Your task to perform on an android device: Search for a 4k TV on Best Buy Image 0: 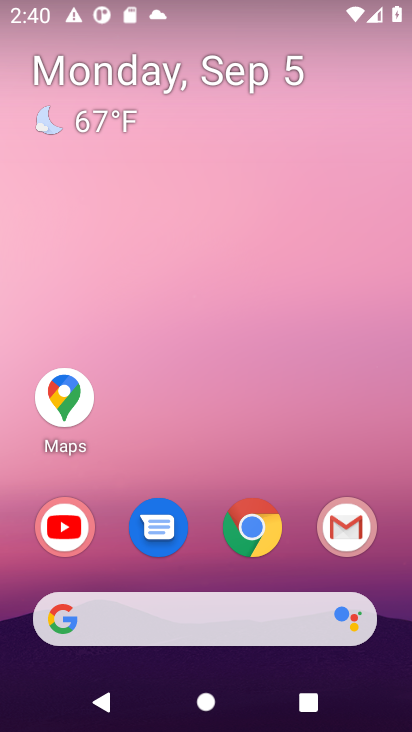
Step 0: click (269, 537)
Your task to perform on an android device: Search for a 4k TV on Best Buy Image 1: 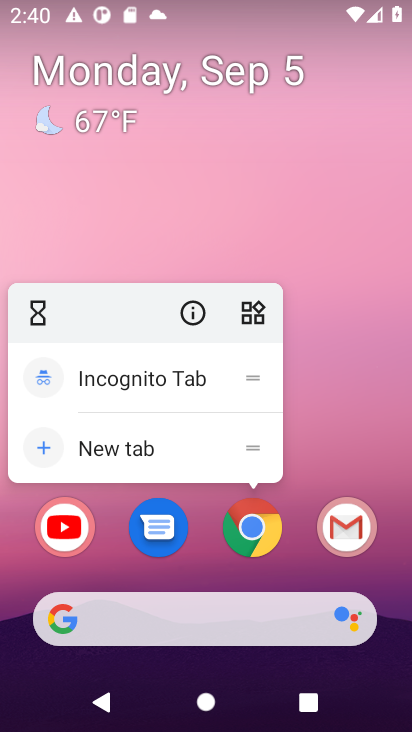
Step 1: click (264, 537)
Your task to perform on an android device: Search for a 4k TV on Best Buy Image 2: 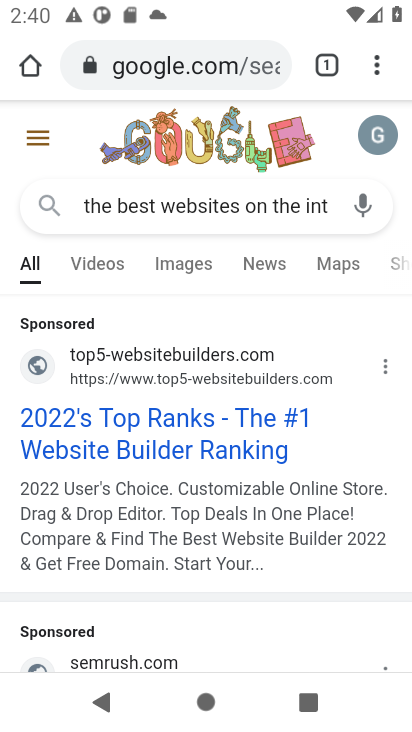
Step 2: click (222, 66)
Your task to perform on an android device: Search for a 4k TV on Best Buy Image 3: 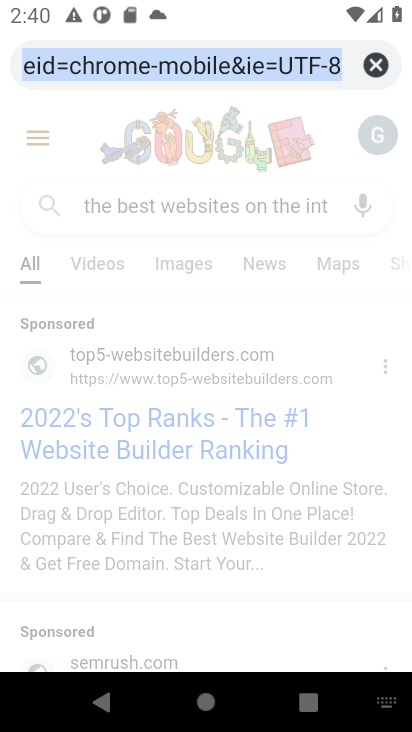
Step 3: type "best buy"
Your task to perform on an android device: Search for a 4k TV on Best Buy Image 4: 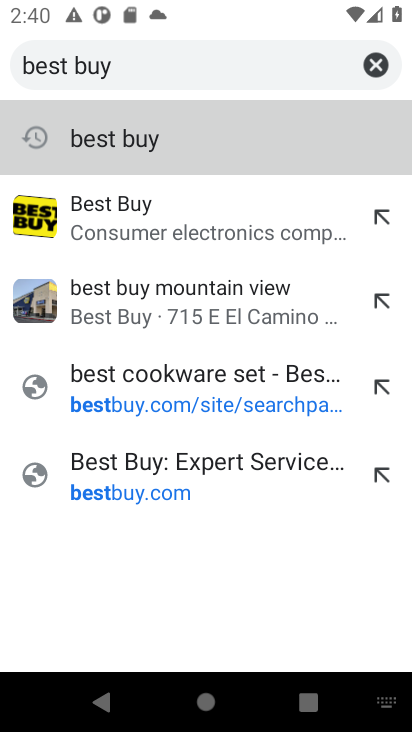
Step 4: click (160, 129)
Your task to perform on an android device: Search for a 4k TV on Best Buy Image 5: 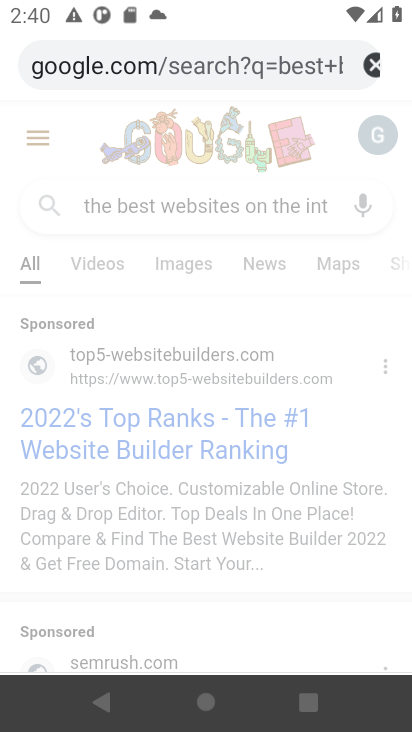
Step 5: click (148, 208)
Your task to perform on an android device: Search for a 4k TV on Best Buy Image 6: 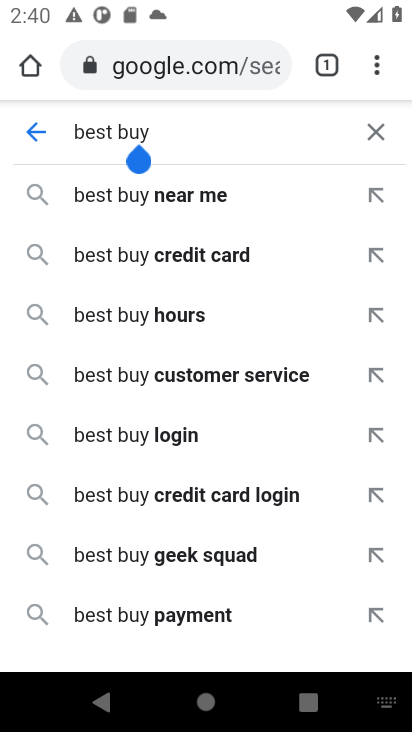
Step 6: click (131, 221)
Your task to perform on an android device: Search for a 4k TV on Best Buy Image 7: 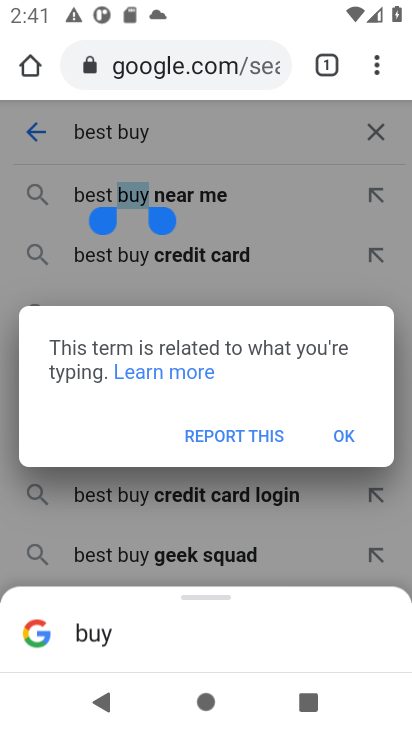
Step 7: click (328, 217)
Your task to perform on an android device: Search for a 4k TV on Best Buy Image 8: 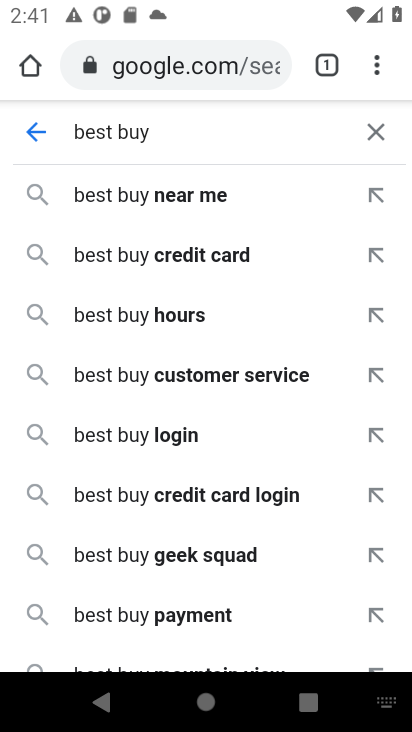
Step 8: click (198, 65)
Your task to perform on an android device: Search for a 4k TV on Best Buy Image 9: 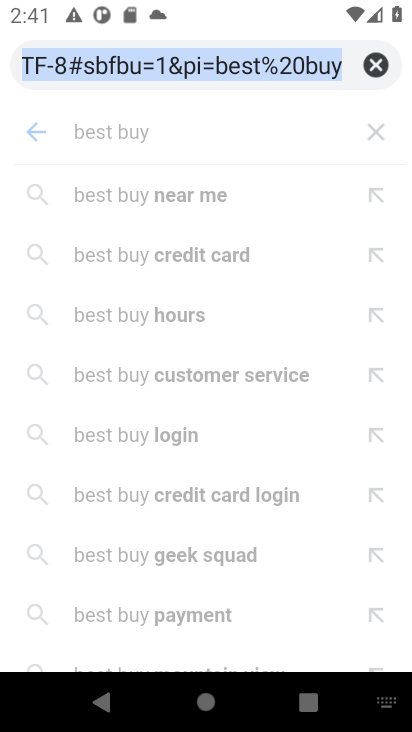
Step 9: type "best buy"
Your task to perform on an android device: Search for a 4k TV on Best Buy Image 10: 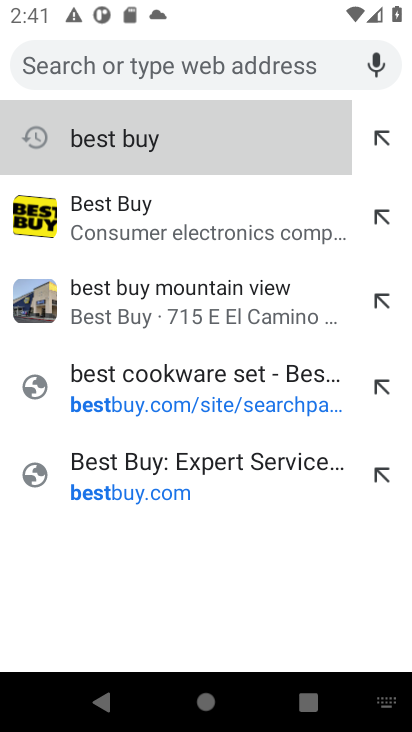
Step 10: click (106, 143)
Your task to perform on an android device: Search for a 4k TV on Best Buy Image 11: 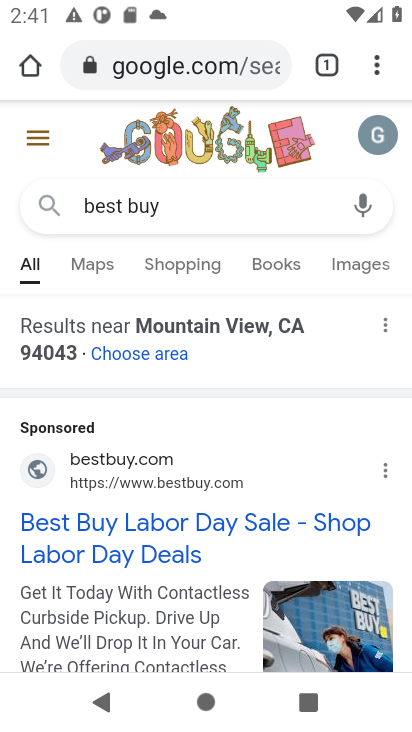
Step 11: click (176, 542)
Your task to perform on an android device: Search for a 4k TV on Best Buy Image 12: 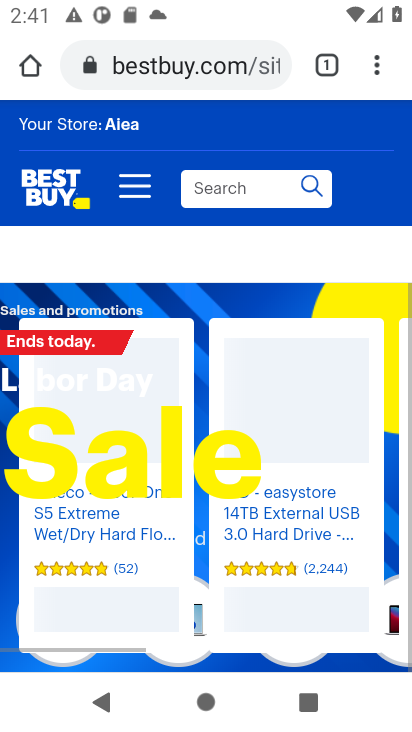
Step 12: click (156, 526)
Your task to perform on an android device: Search for a 4k TV on Best Buy Image 13: 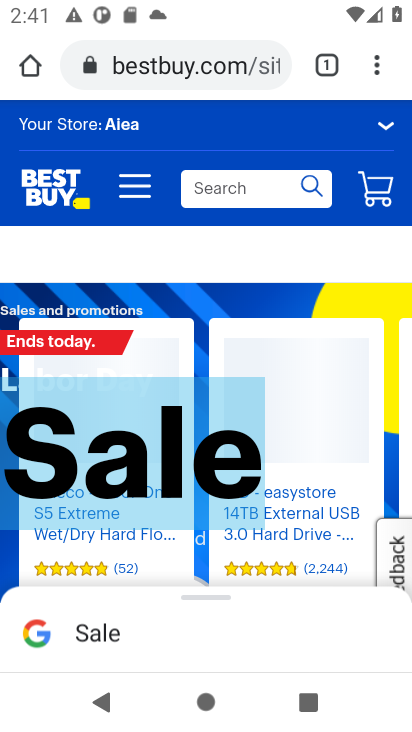
Step 13: click (234, 183)
Your task to perform on an android device: Search for a 4k TV on Best Buy Image 14: 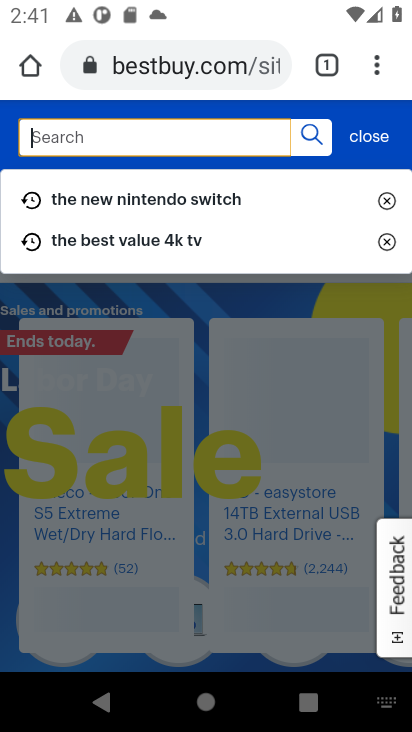
Step 14: type "4K TV"
Your task to perform on an android device: Search for a 4k TV on Best Buy Image 15: 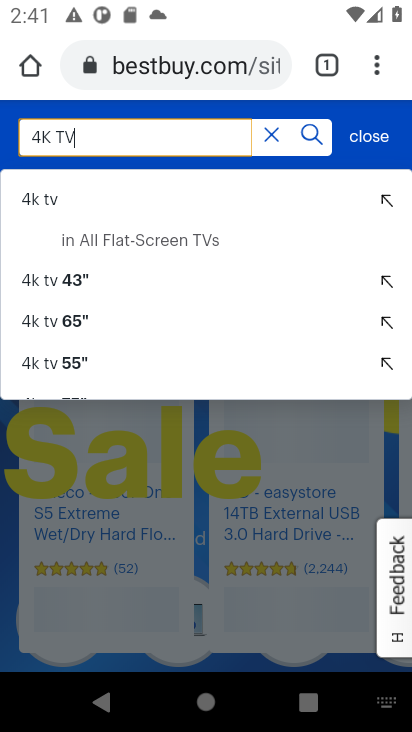
Step 15: click (43, 188)
Your task to perform on an android device: Search for a 4k TV on Best Buy Image 16: 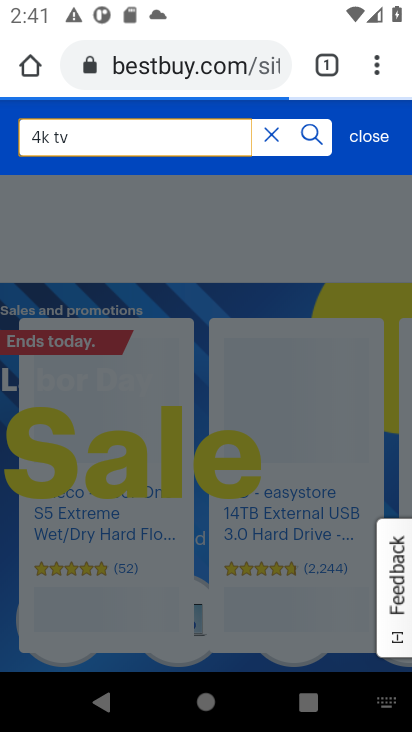
Step 16: click (315, 133)
Your task to perform on an android device: Search for a 4k TV on Best Buy Image 17: 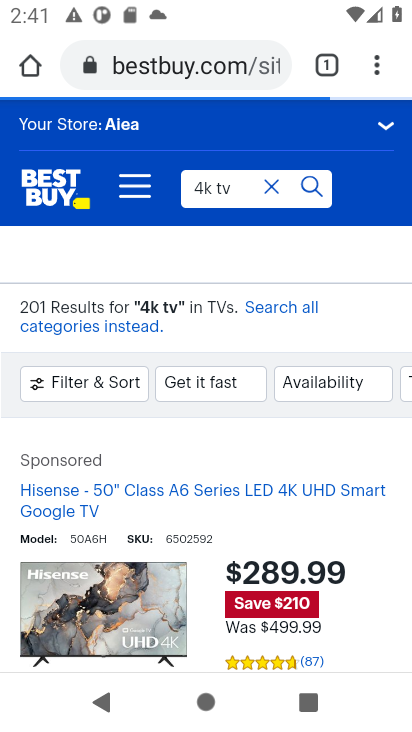
Step 17: task complete